Your task to perform on an android device: Open the calendar app, open the side menu, and click the "Day" option Image 0: 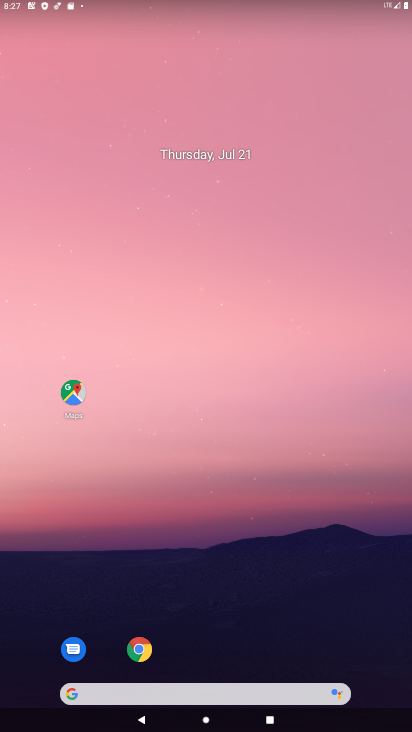
Step 0: drag from (204, 546) to (198, 97)
Your task to perform on an android device: Open the calendar app, open the side menu, and click the "Day" option Image 1: 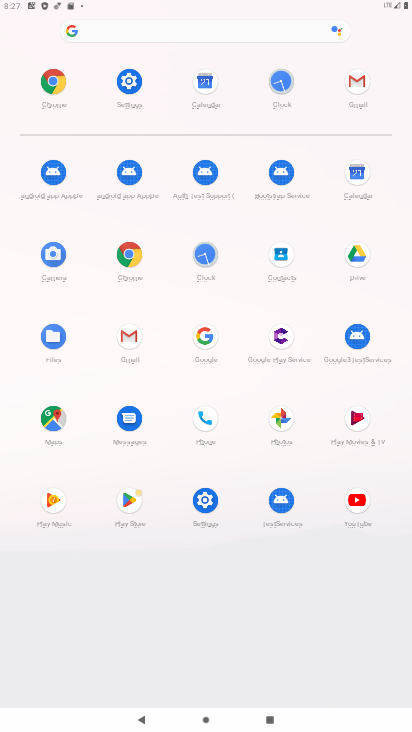
Step 1: click (349, 192)
Your task to perform on an android device: Open the calendar app, open the side menu, and click the "Day" option Image 2: 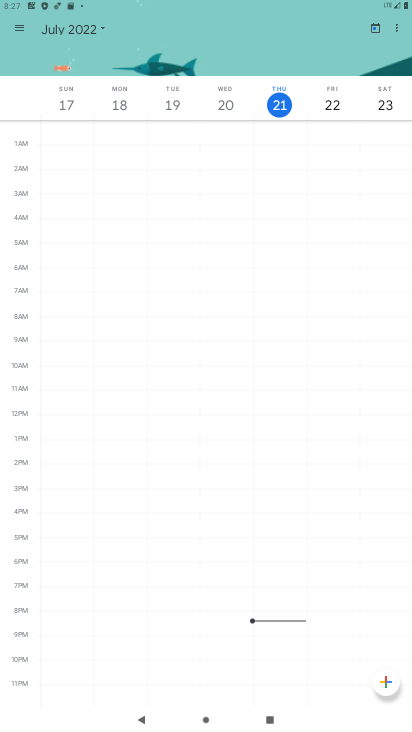
Step 2: click (8, 23)
Your task to perform on an android device: Open the calendar app, open the side menu, and click the "Day" option Image 3: 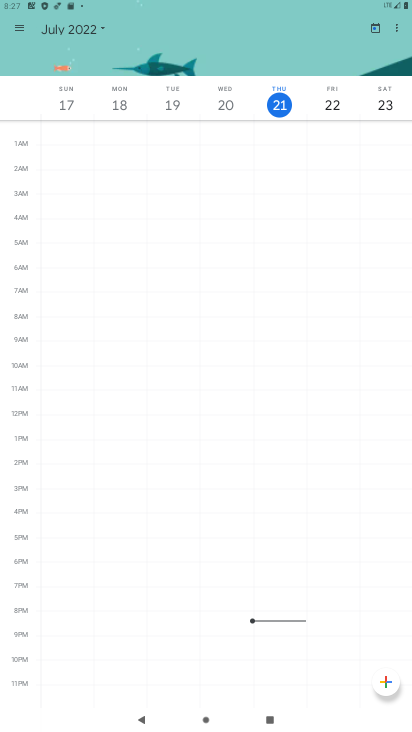
Step 3: click (21, 26)
Your task to perform on an android device: Open the calendar app, open the side menu, and click the "Day" option Image 4: 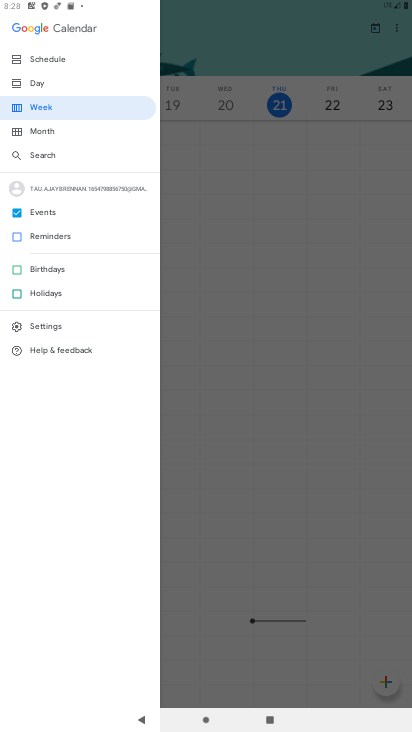
Step 4: click (44, 80)
Your task to perform on an android device: Open the calendar app, open the side menu, and click the "Day" option Image 5: 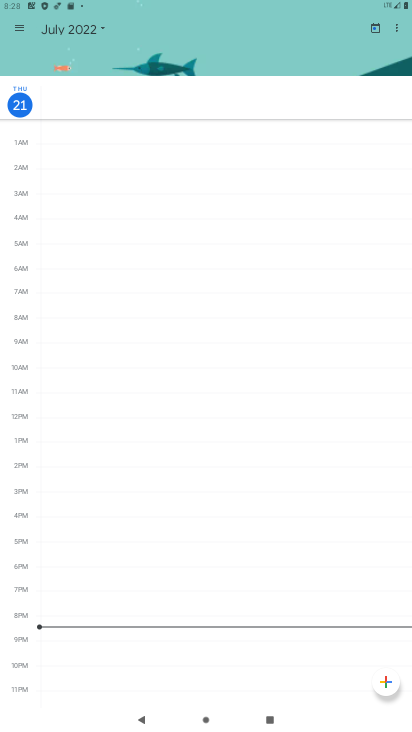
Step 5: task complete